Your task to perform on an android device: turn vacation reply on in the gmail app Image 0: 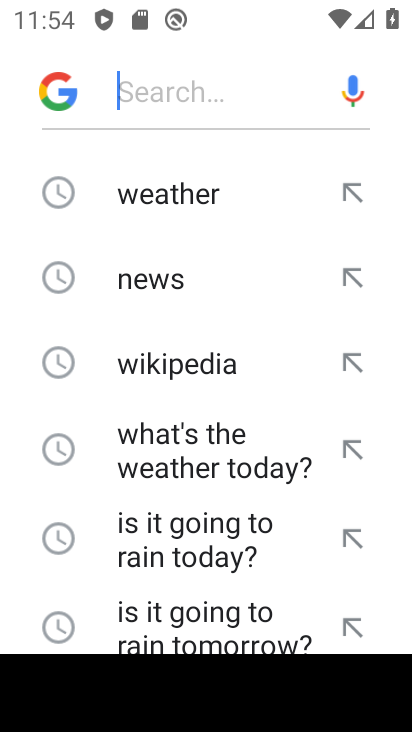
Step 0: task complete